Your task to perform on an android device: change alarm snooze length Image 0: 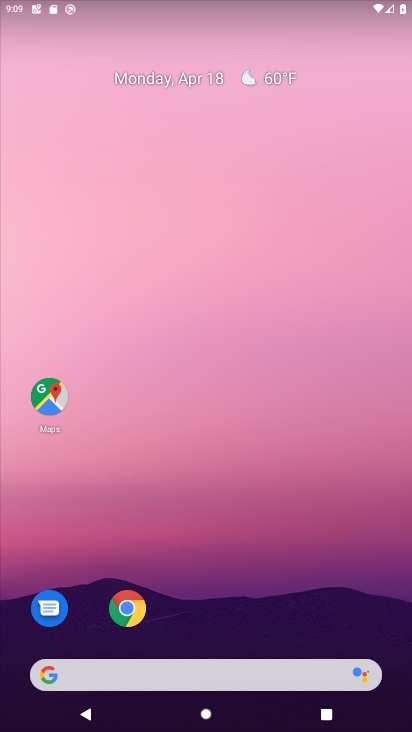
Step 0: drag from (318, 541) to (314, 261)
Your task to perform on an android device: change alarm snooze length Image 1: 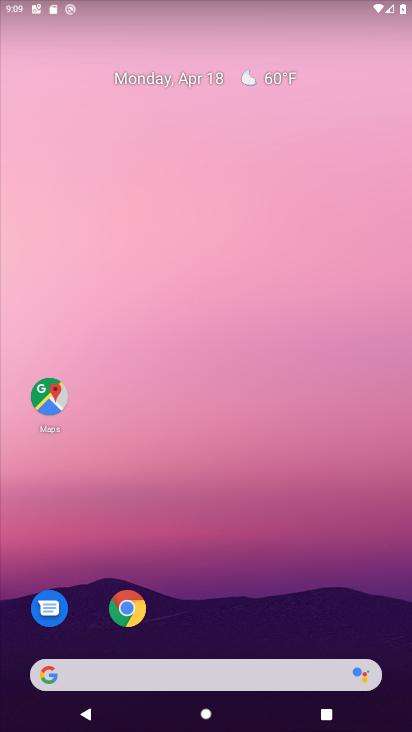
Step 1: drag from (329, 572) to (324, 110)
Your task to perform on an android device: change alarm snooze length Image 2: 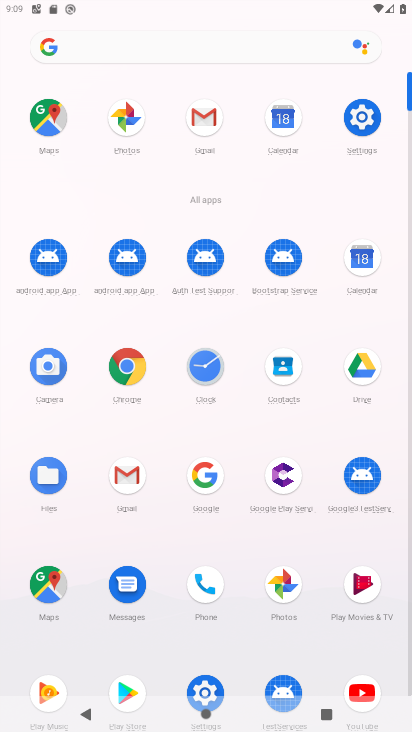
Step 2: click (210, 372)
Your task to perform on an android device: change alarm snooze length Image 3: 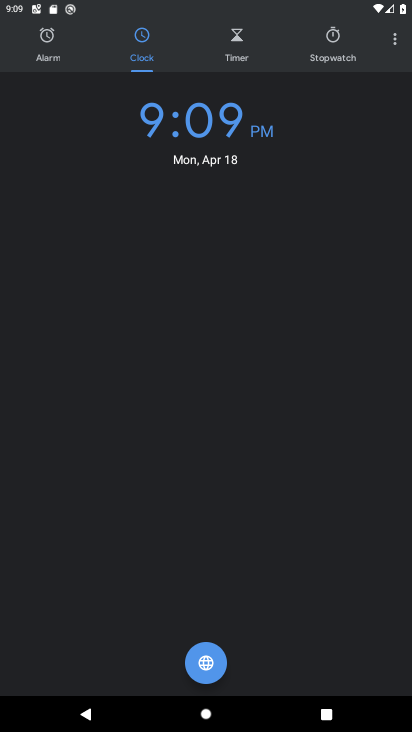
Step 3: click (395, 46)
Your task to perform on an android device: change alarm snooze length Image 4: 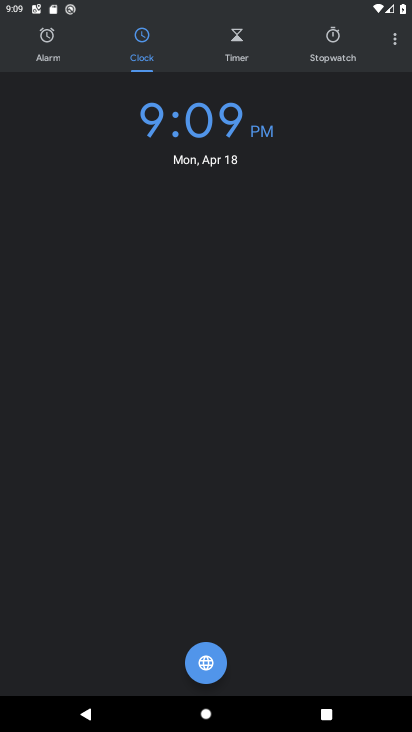
Step 4: click (391, 41)
Your task to perform on an android device: change alarm snooze length Image 5: 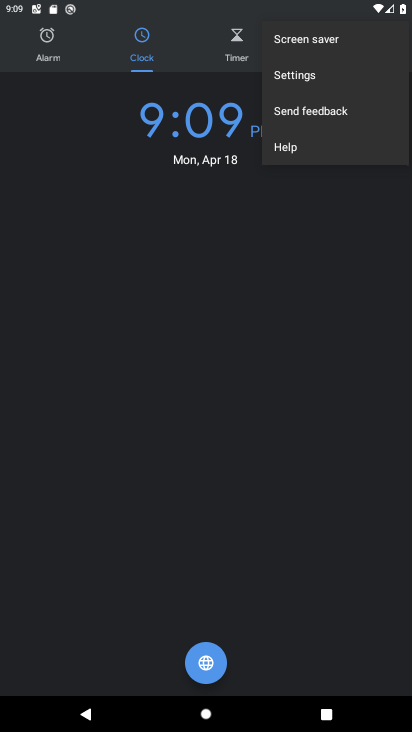
Step 5: click (325, 79)
Your task to perform on an android device: change alarm snooze length Image 6: 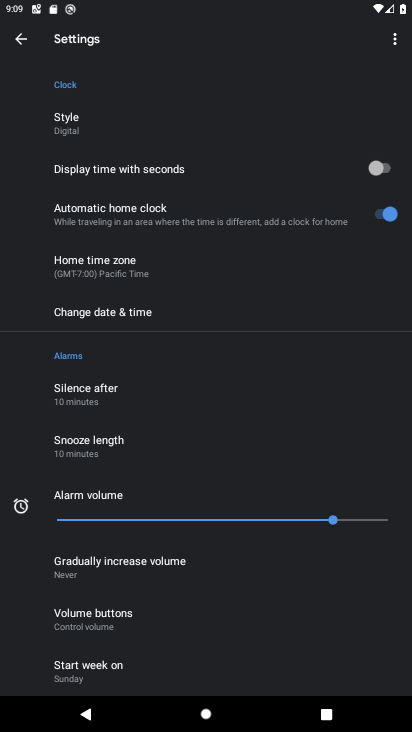
Step 6: click (122, 444)
Your task to perform on an android device: change alarm snooze length Image 7: 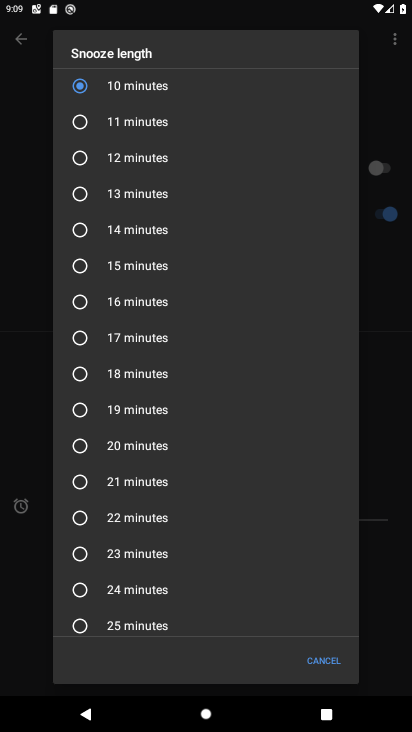
Step 7: click (115, 158)
Your task to perform on an android device: change alarm snooze length Image 8: 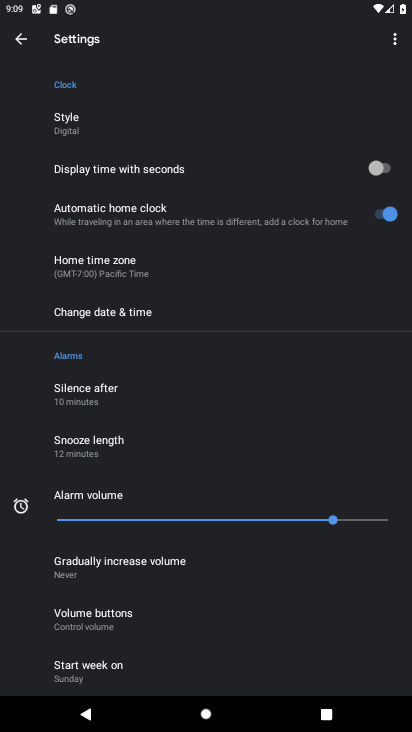
Step 8: task complete